Your task to perform on an android device: clear all cookies in the chrome app Image 0: 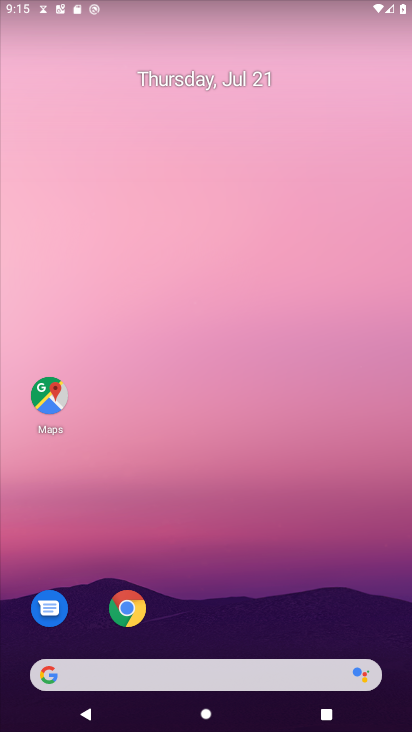
Step 0: click (131, 614)
Your task to perform on an android device: clear all cookies in the chrome app Image 1: 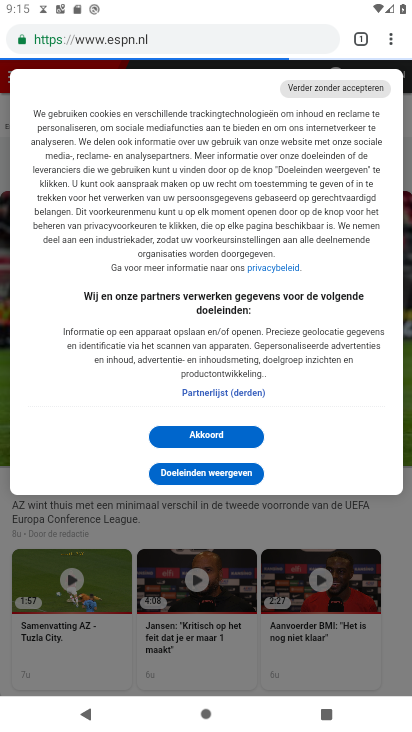
Step 1: click (393, 47)
Your task to perform on an android device: clear all cookies in the chrome app Image 2: 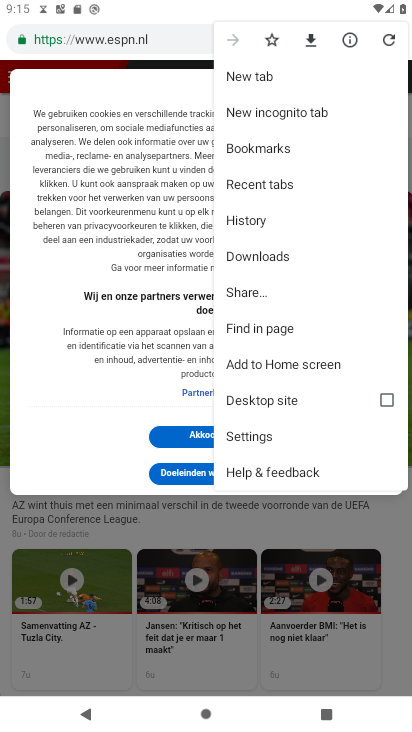
Step 2: click (259, 214)
Your task to perform on an android device: clear all cookies in the chrome app Image 3: 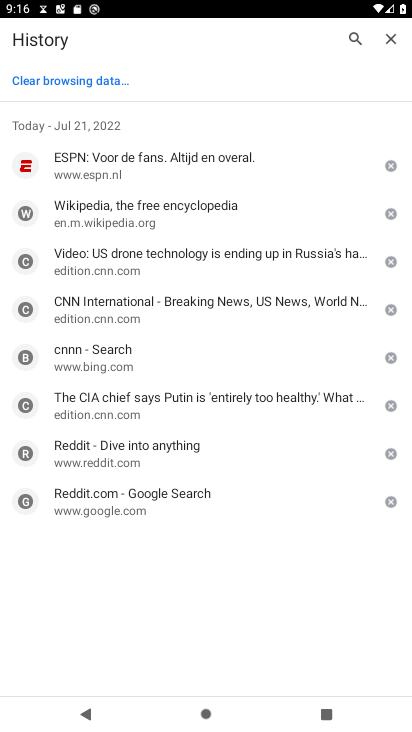
Step 3: click (74, 77)
Your task to perform on an android device: clear all cookies in the chrome app Image 4: 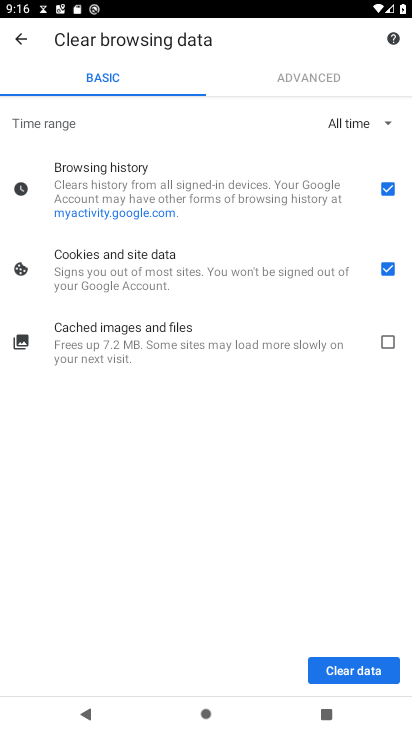
Step 4: click (391, 185)
Your task to perform on an android device: clear all cookies in the chrome app Image 5: 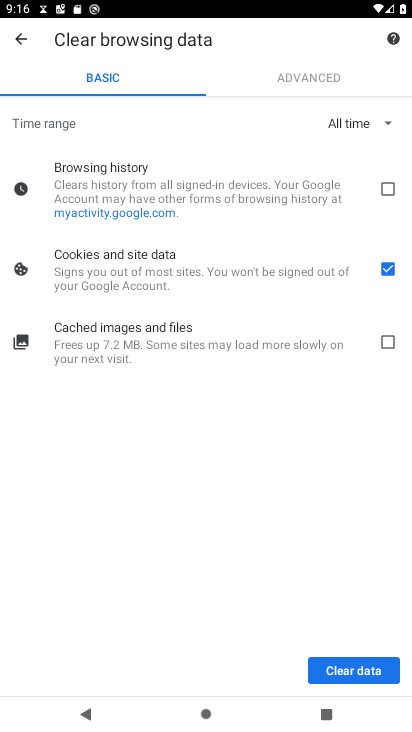
Step 5: click (330, 667)
Your task to perform on an android device: clear all cookies in the chrome app Image 6: 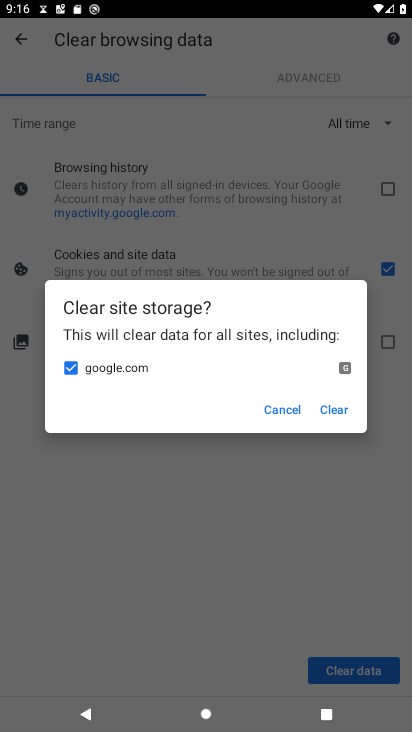
Step 6: click (333, 401)
Your task to perform on an android device: clear all cookies in the chrome app Image 7: 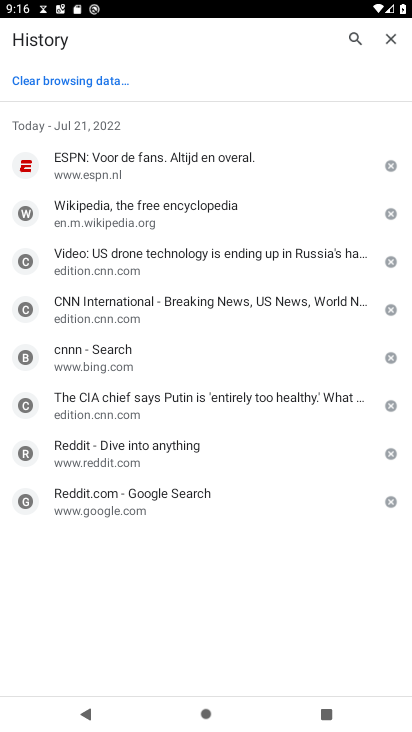
Step 7: task complete